Your task to perform on an android device: add a contact Image 0: 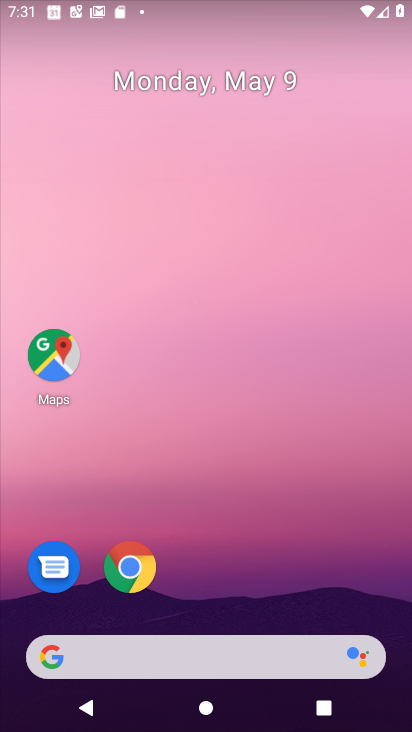
Step 0: drag from (240, 522) to (240, 213)
Your task to perform on an android device: add a contact Image 1: 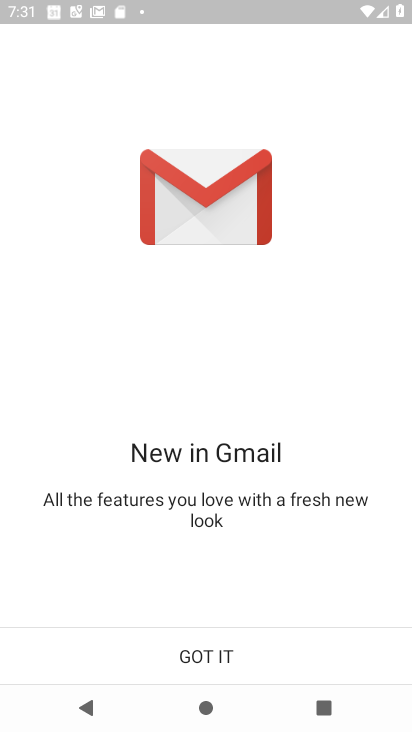
Step 1: click (201, 651)
Your task to perform on an android device: add a contact Image 2: 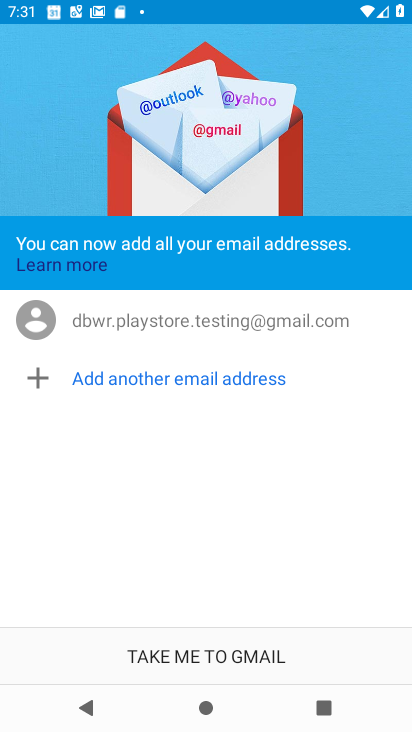
Step 2: press home button
Your task to perform on an android device: add a contact Image 3: 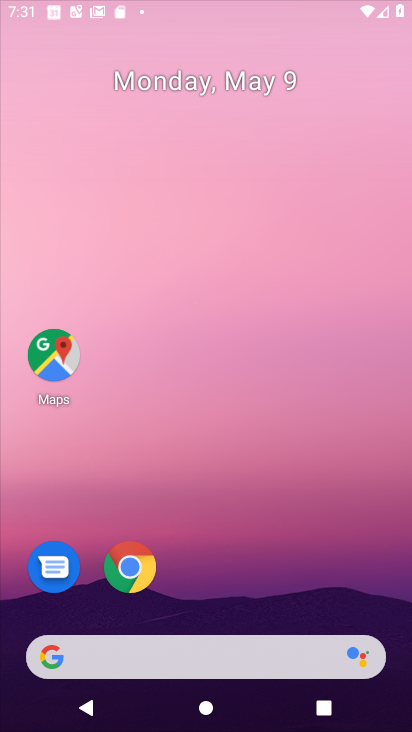
Step 3: drag from (160, 576) to (223, 113)
Your task to perform on an android device: add a contact Image 4: 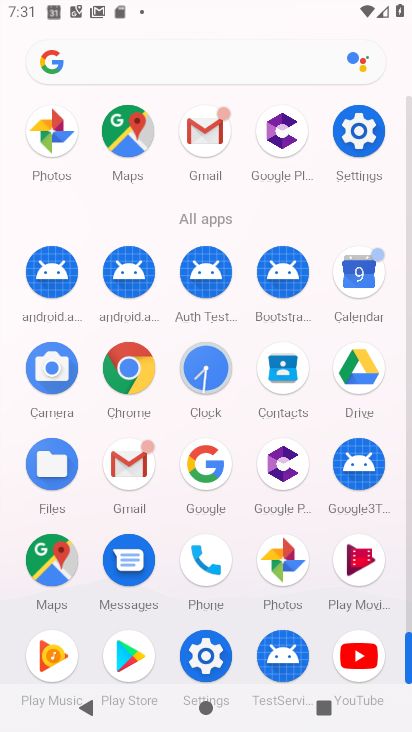
Step 4: click (283, 362)
Your task to perform on an android device: add a contact Image 5: 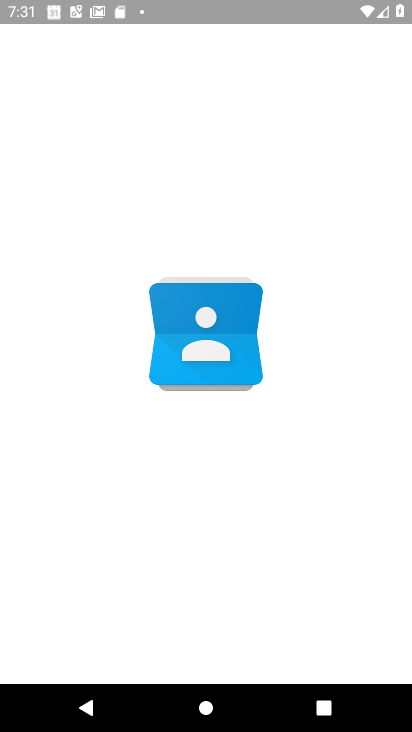
Step 5: drag from (223, 622) to (256, 303)
Your task to perform on an android device: add a contact Image 6: 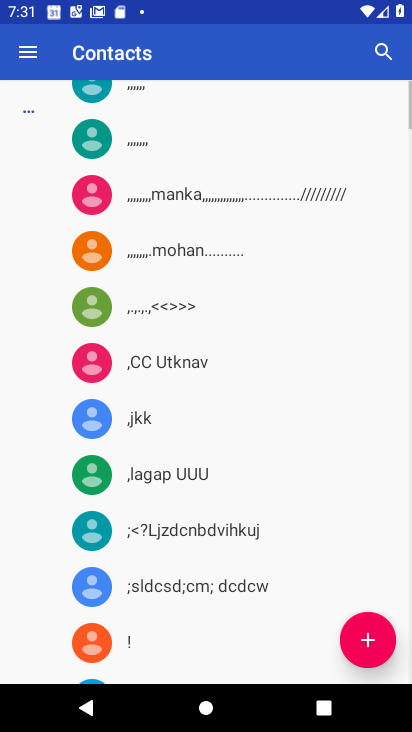
Step 6: drag from (251, 241) to (228, 641)
Your task to perform on an android device: add a contact Image 7: 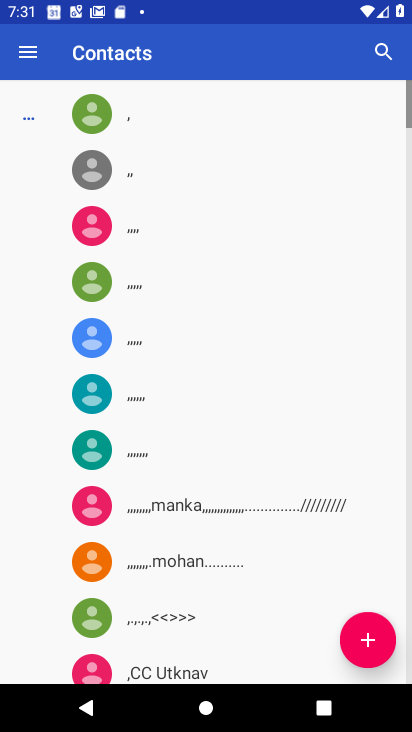
Step 7: click (355, 647)
Your task to perform on an android device: add a contact Image 8: 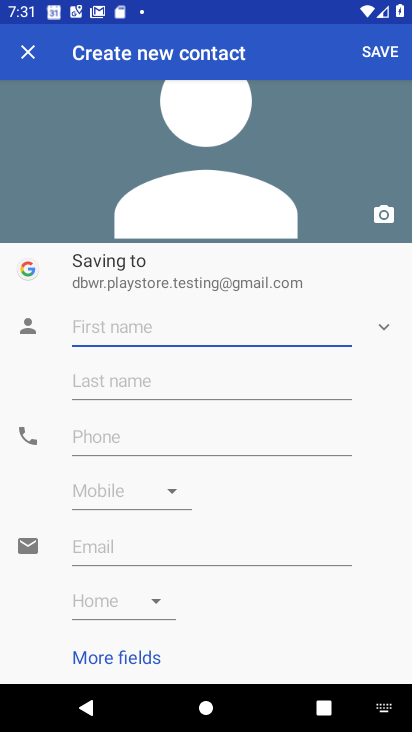
Step 8: click (131, 321)
Your task to perform on an android device: add a contact Image 9: 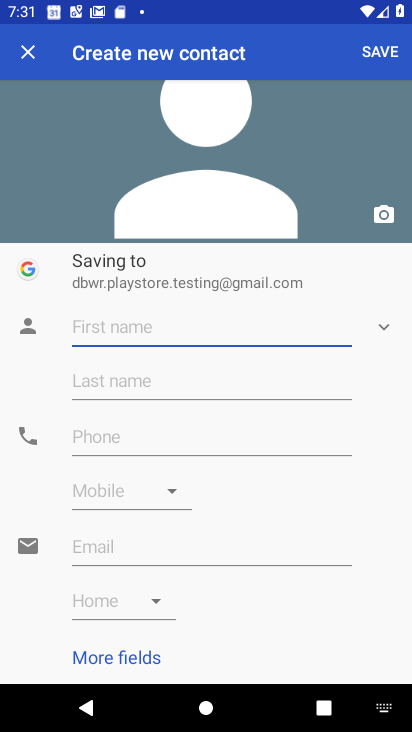
Step 9: type "msjka"
Your task to perform on an android device: add a contact Image 10: 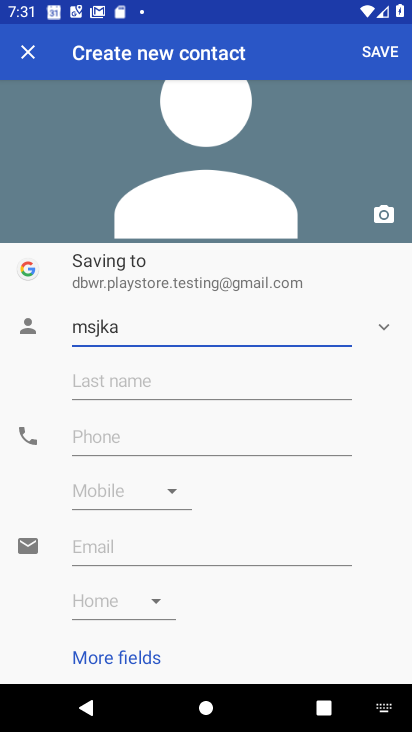
Step 10: click (362, 47)
Your task to perform on an android device: add a contact Image 11: 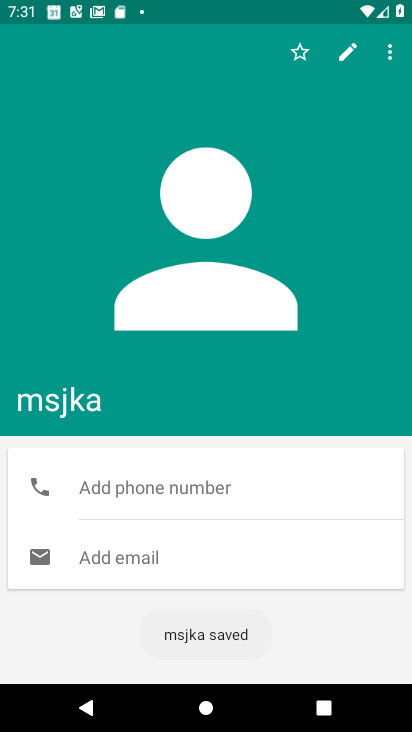
Step 11: task complete